Your task to perform on an android device: see sites visited before in the chrome app Image 0: 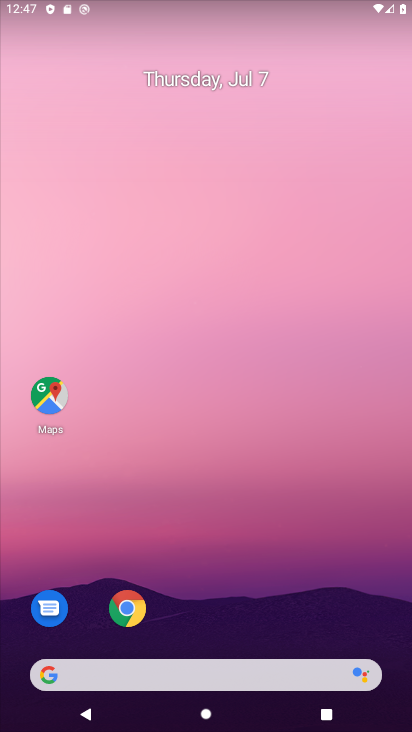
Step 0: click (137, 611)
Your task to perform on an android device: see sites visited before in the chrome app Image 1: 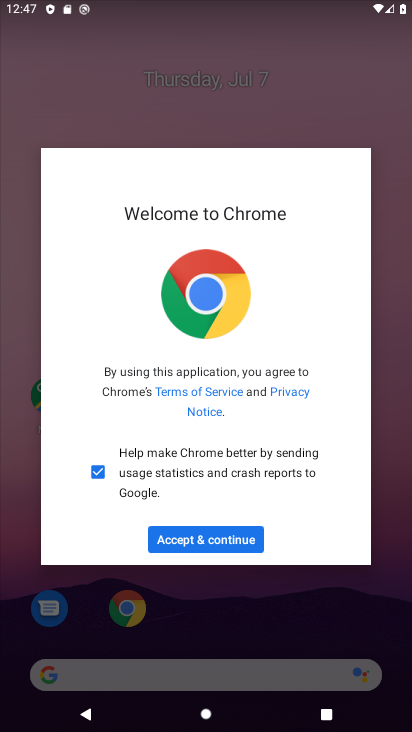
Step 1: click (212, 549)
Your task to perform on an android device: see sites visited before in the chrome app Image 2: 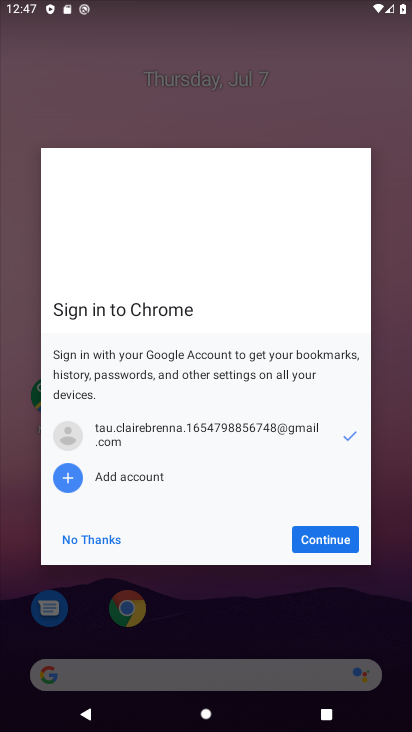
Step 2: click (322, 539)
Your task to perform on an android device: see sites visited before in the chrome app Image 3: 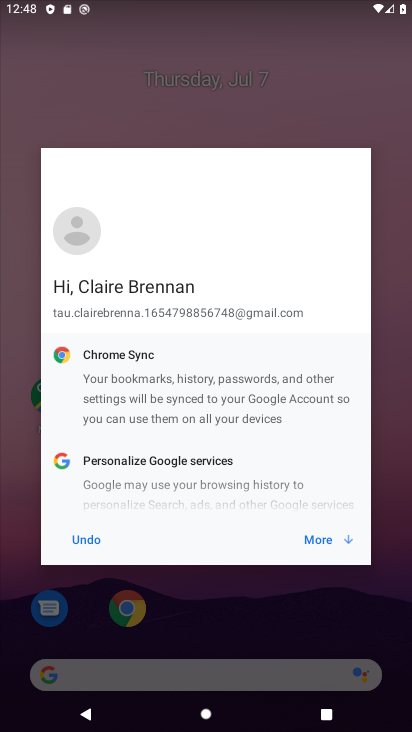
Step 3: click (314, 540)
Your task to perform on an android device: see sites visited before in the chrome app Image 4: 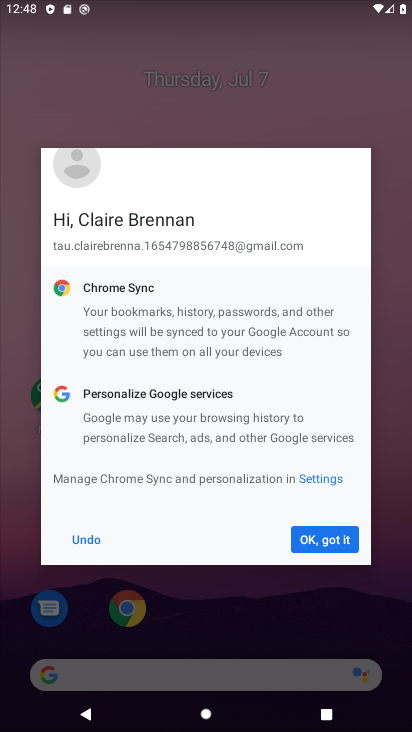
Step 4: click (309, 540)
Your task to perform on an android device: see sites visited before in the chrome app Image 5: 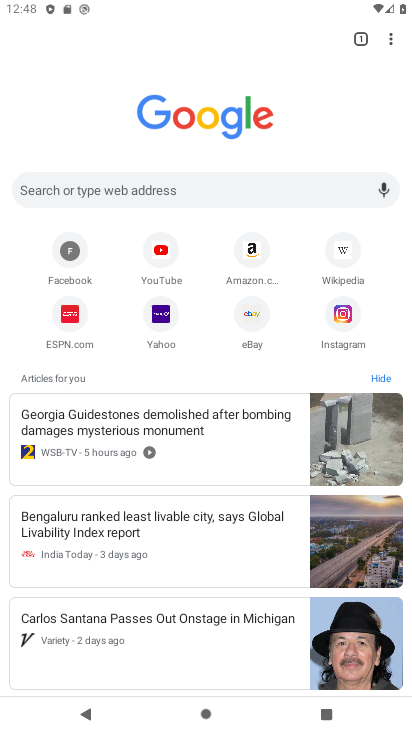
Step 5: task complete